Your task to perform on an android device: turn on the 12-hour format for clock Image 0: 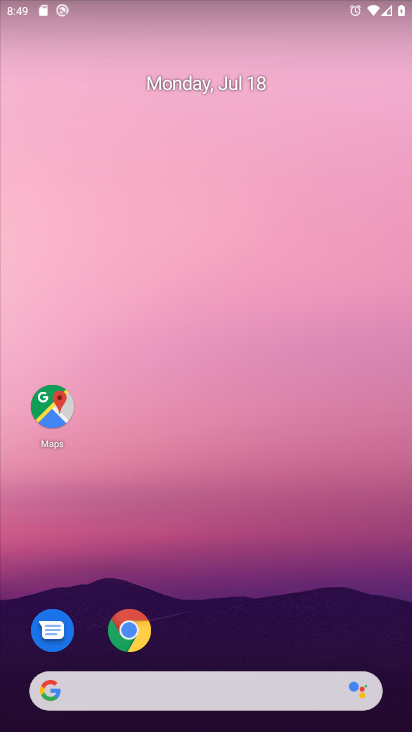
Step 0: drag from (231, 605) to (221, 189)
Your task to perform on an android device: turn on the 12-hour format for clock Image 1: 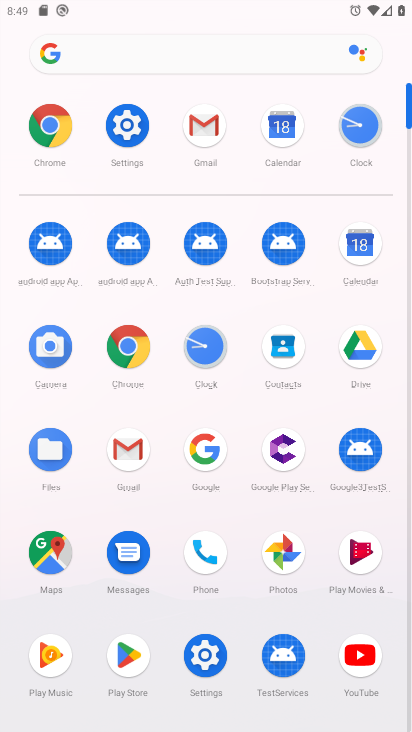
Step 1: click (193, 320)
Your task to perform on an android device: turn on the 12-hour format for clock Image 2: 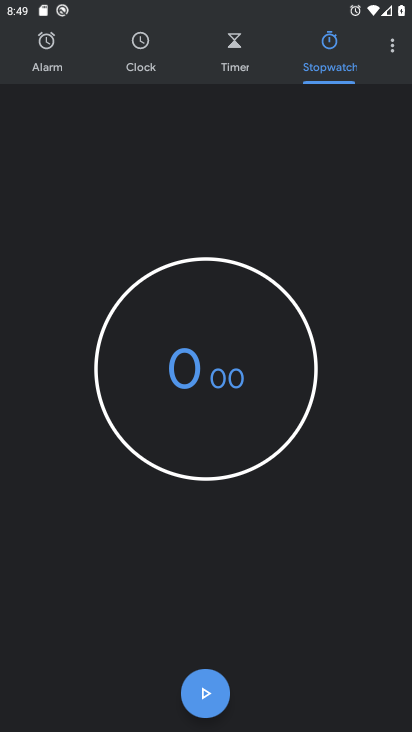
Step 2: click (396, 43)
Your task to perform on an android device: turn on the 12-hour format for clock Image 3: 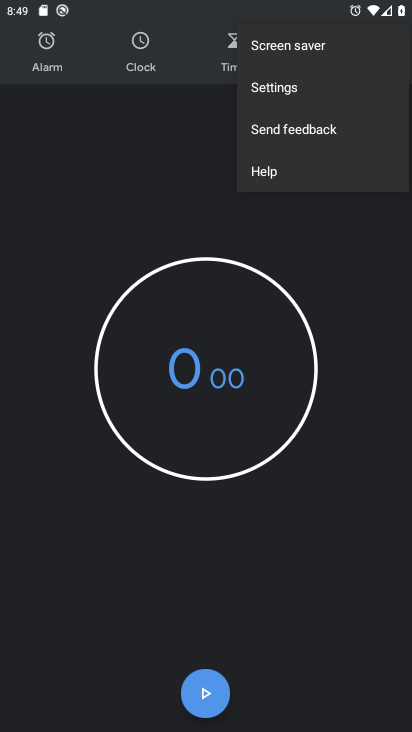
Step 3: click (303, 86)
Your task to perform on an android device: turn on the 12-hour format for clock Image 4: 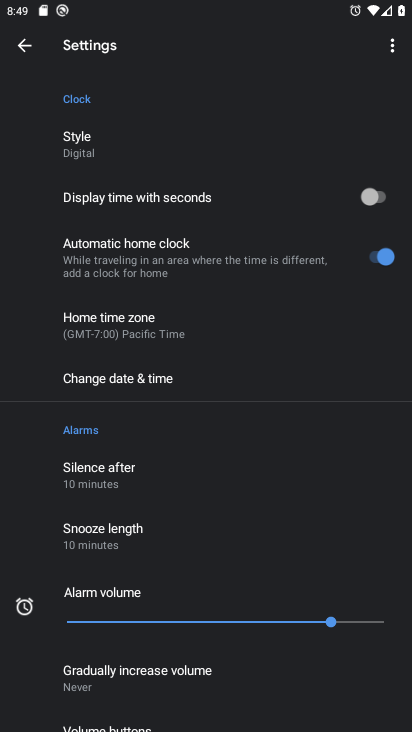
Step 4: click (176, 387)
Your task to perform on an android device: turn on the 12-hour format for clock Image 5: 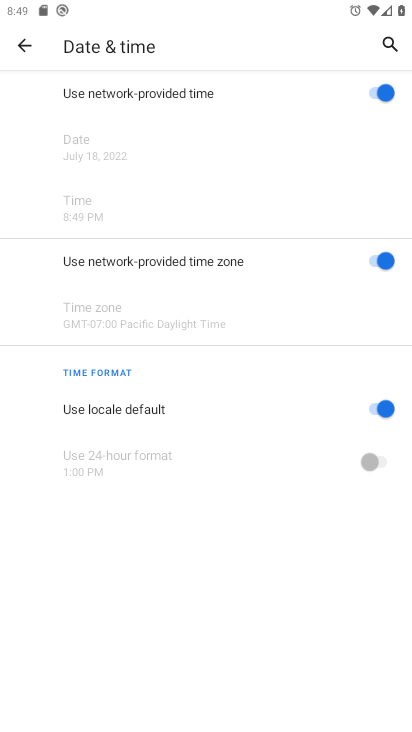
Step 5: task complete